Your task to perform on an android device: Open Chrome and go to the settings page Image 0: 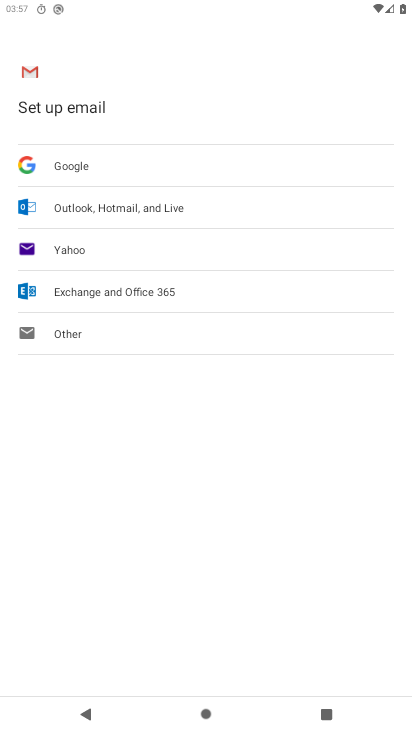
Step 0: press home button
Your task to perform on an android device: Open Chrome and go to the settings page Image 1: 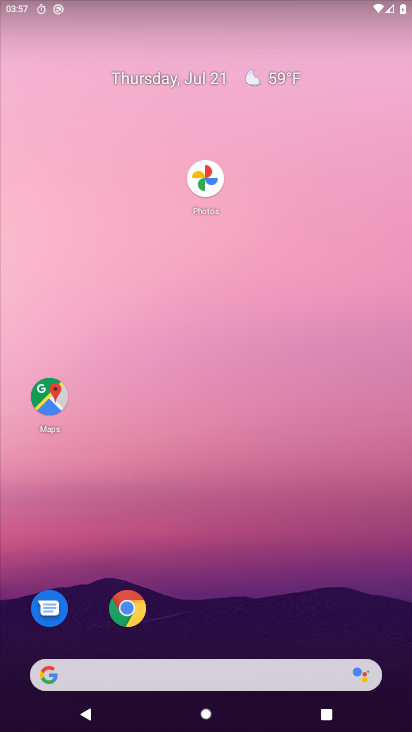
Step 1: drag from (208, 613) to (265, 250)
Your task to perform on an android device: Open Chrome and go to the settings page Image 2: 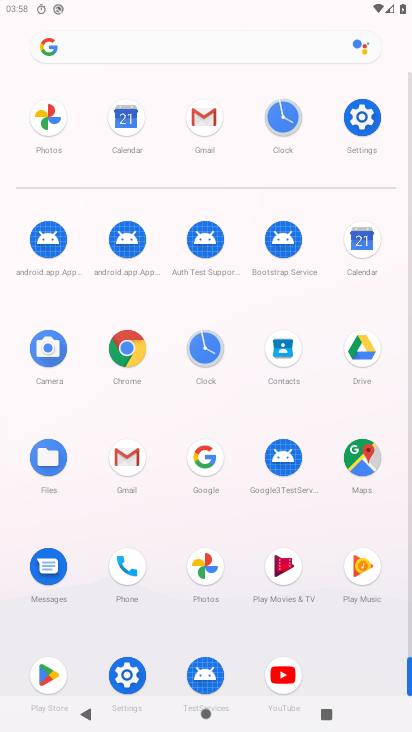
Step 2: click (123, 341)
Your task to perform on an android device: Open Chrome and go to the settings page Image 3: 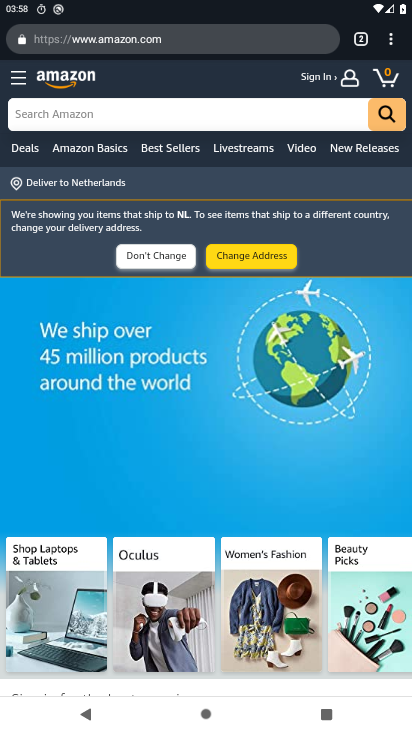
Step 3: click (388, 39)
Your task to perform on an android device: Open Chrome and go to the settings page Image 4: 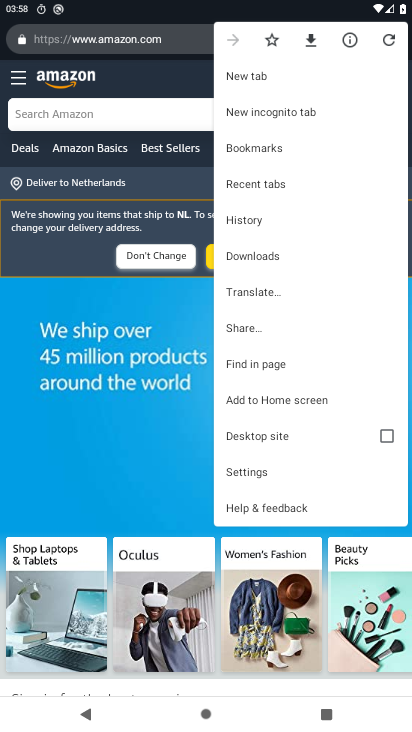
Step 4: click (268, 476)
Your task to perform on an android device: Open Chrome and go to the settings page Image 5: 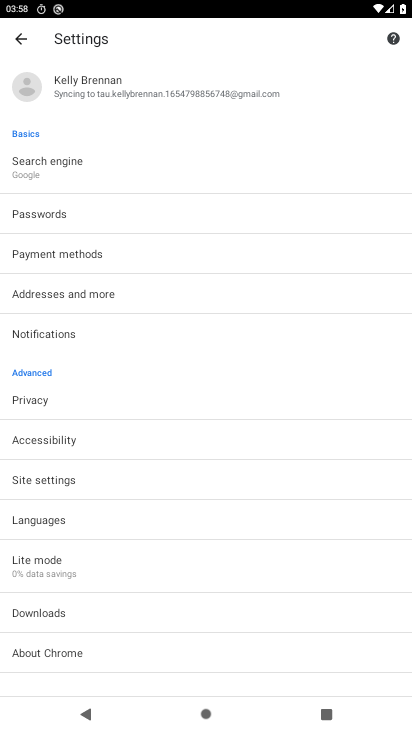
Step 5: task complete